Your task to perform on an android device: toggle notification dots Image 0: 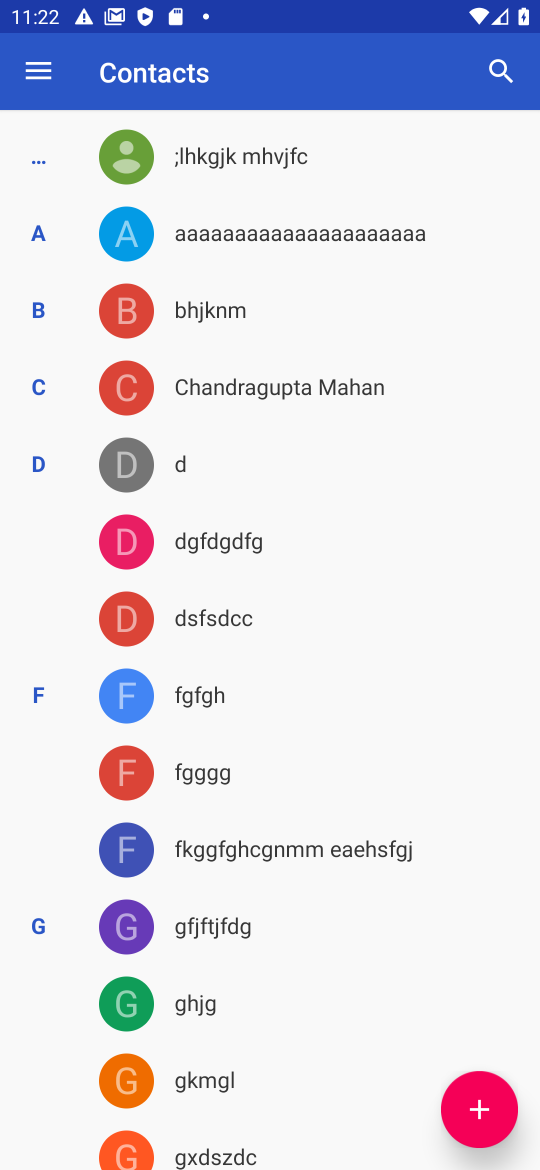
Step 0: press home button
Your task to perform on an android device: toggle notification dots Image 1: 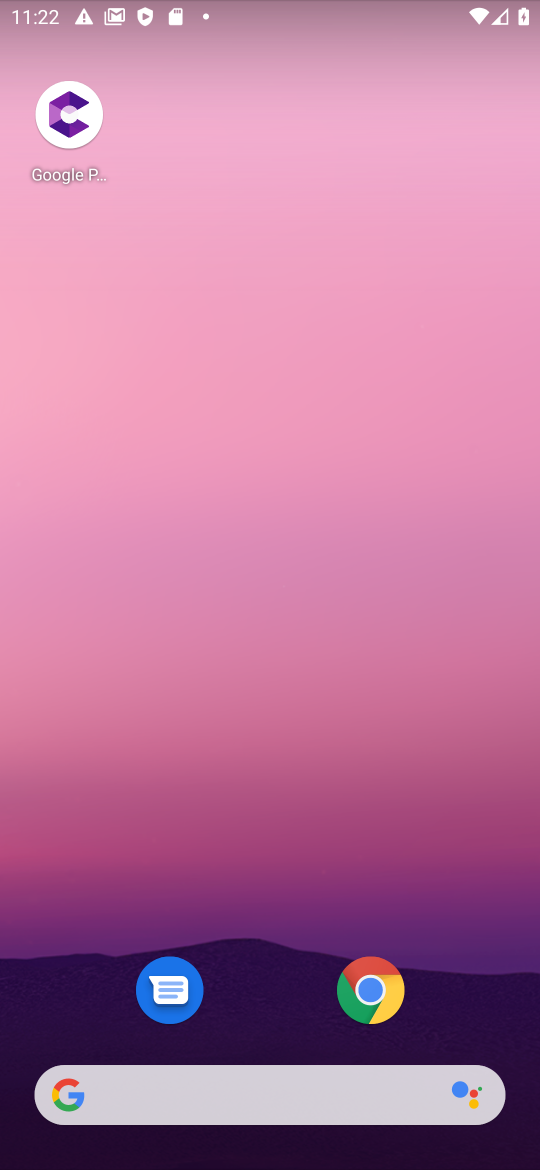
Step 1: drag from (297, 964) to (336, 321)
Your task to perform on an android device: toggle notification dots Image 2: 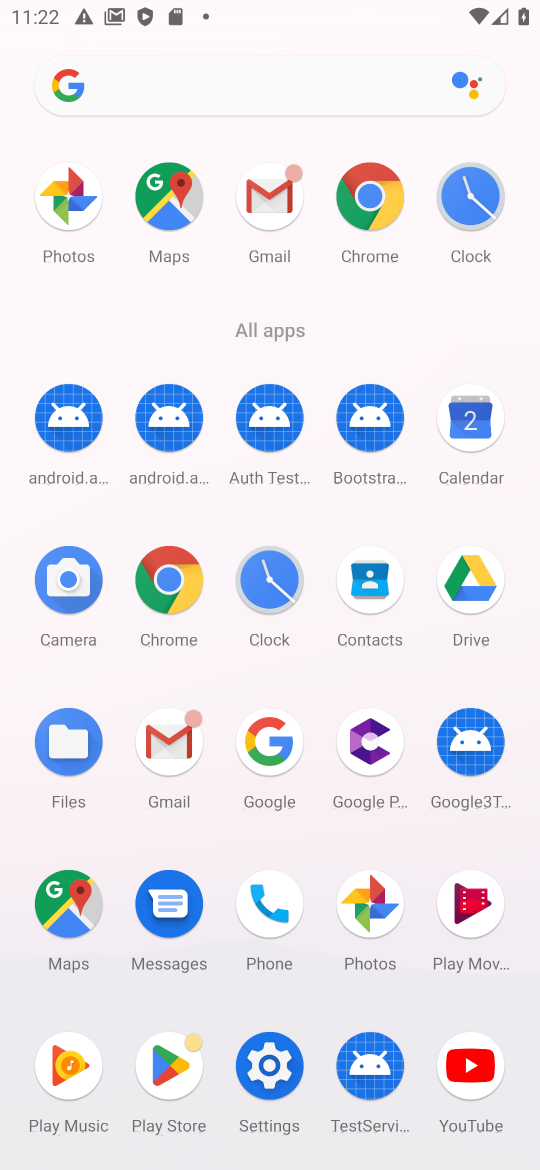
Step 2: click (253, 1053)
Your task to perform on an android device: toggle notification dots Image 3: 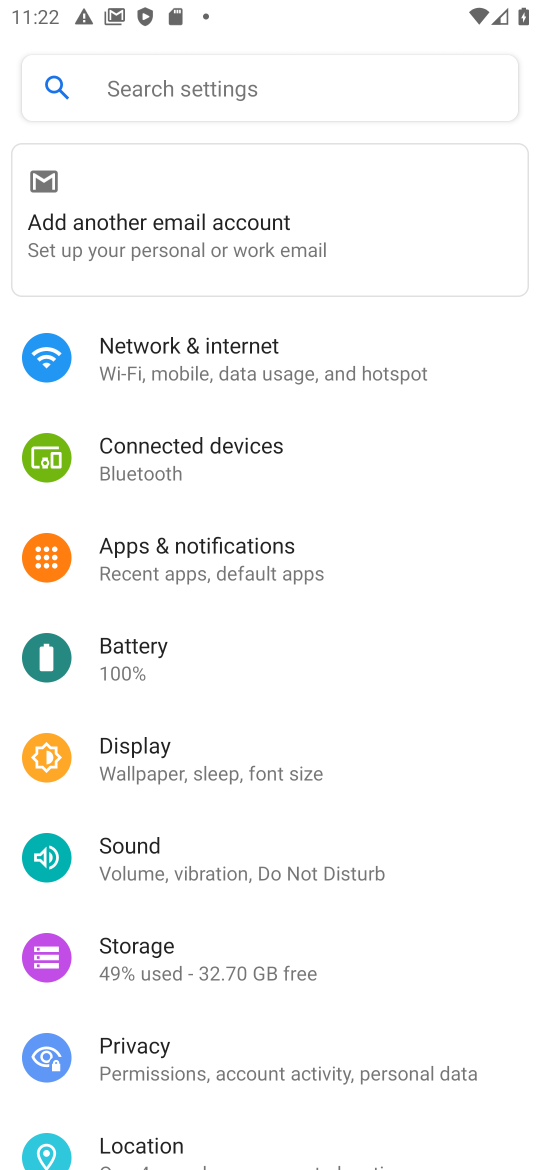
Step 3: click (203, 571)
Your task to perform on an android device: toggle notification dots Image 4: 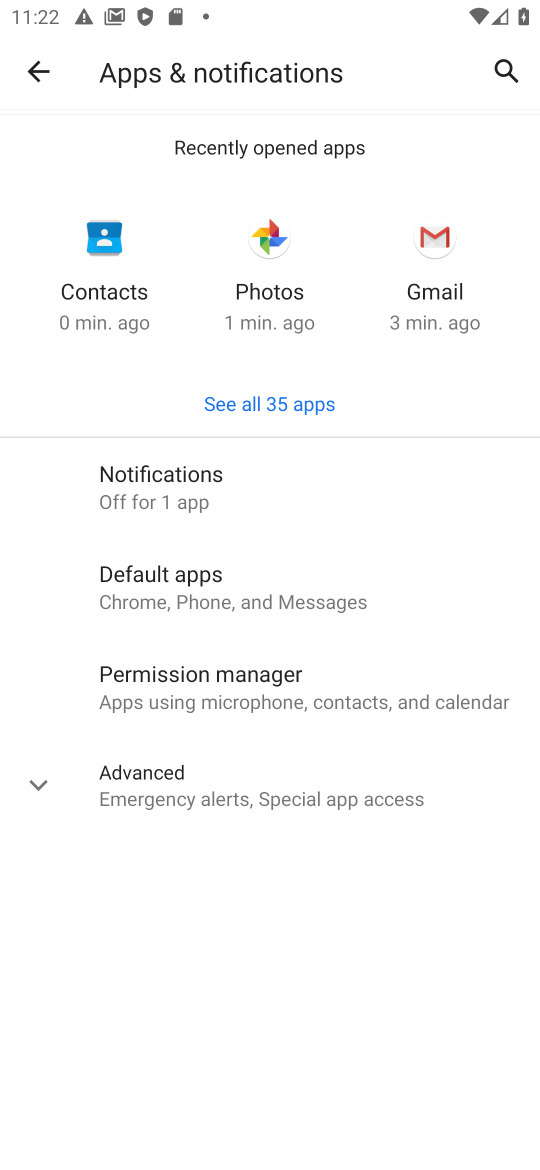
Step 4: click (178, 748)
Your task to perform on an android device: toggle notification dots Image 5: 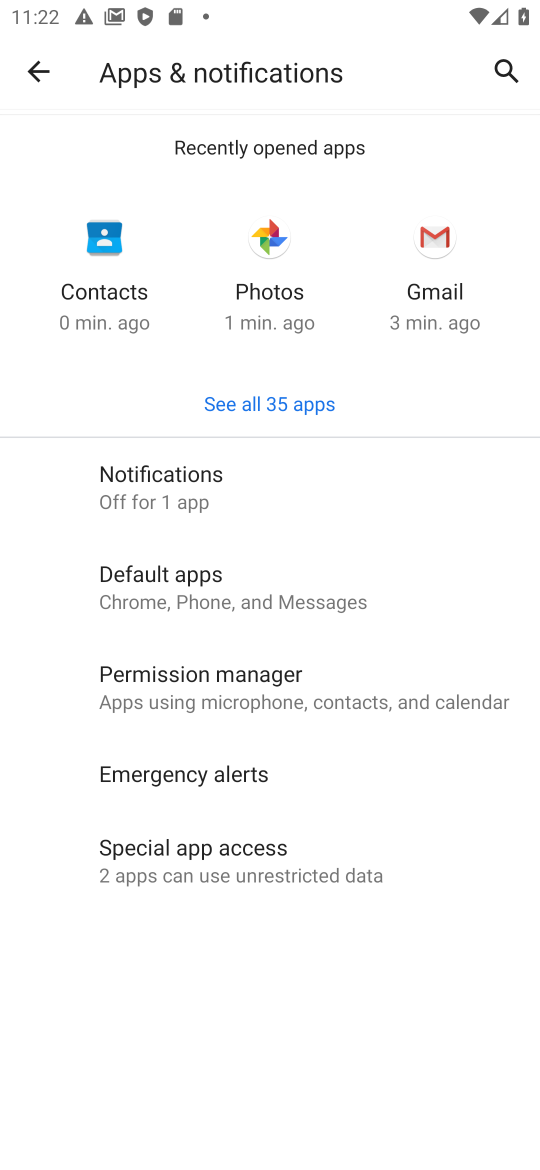
Step 5: click (173, 483)
Your task to perform on an android device: toggle notification dots Image 6: 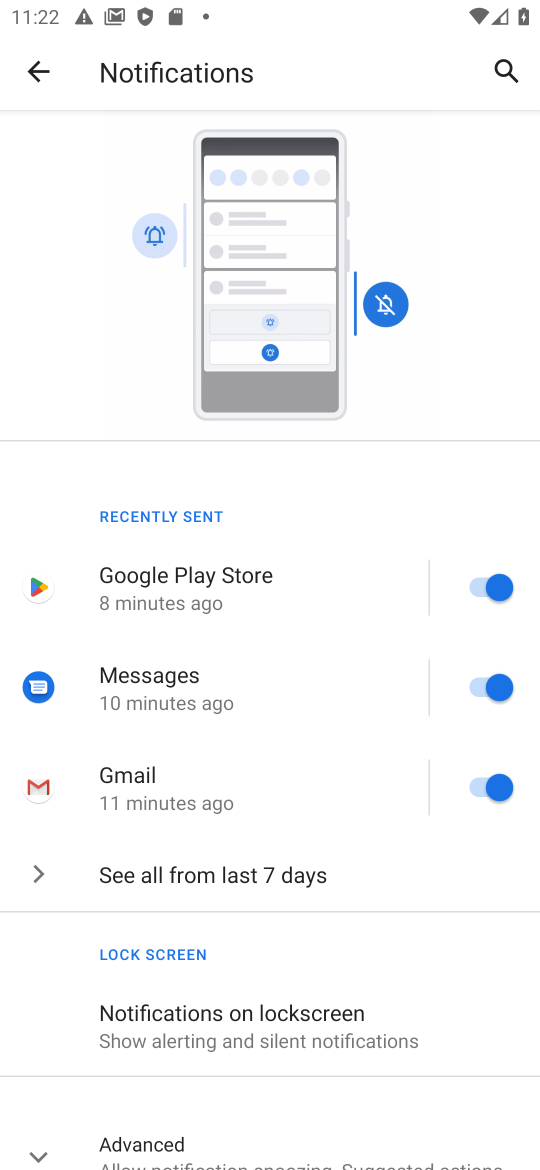
Step 6: drag from (250, 1019) to (257, 678)
Your task to perform on an android device: toggle notification dots Image 7: 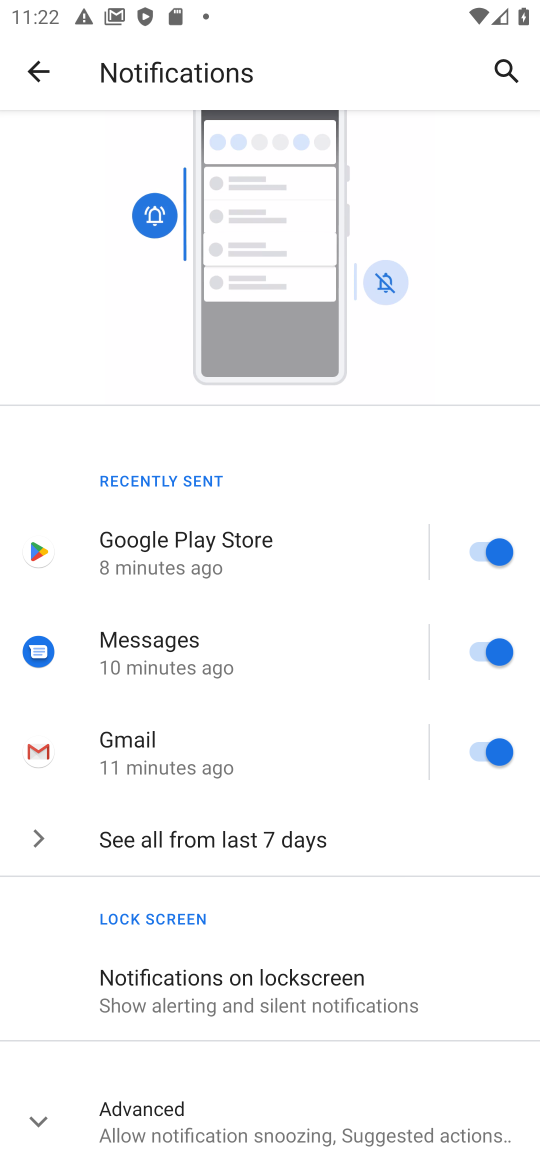
Step 7: click (173, 1113)
Your task to perform on an android device: toggle notification dots Image 8: 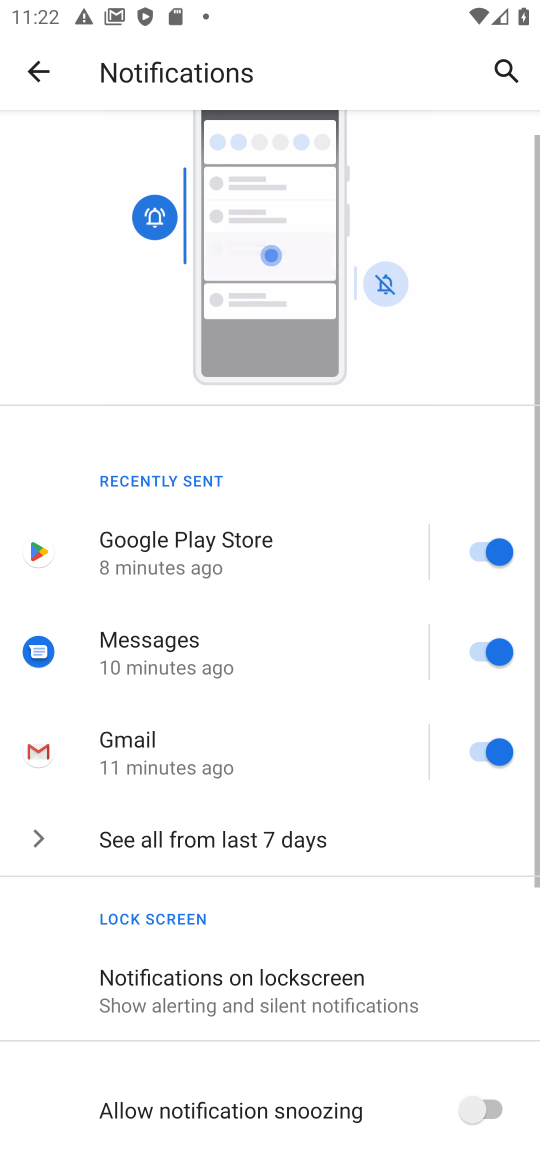
Step 8: drag from (251, 1081) to (306, 586)
Your task to perform on an android device: toggle notification dots Image 9: 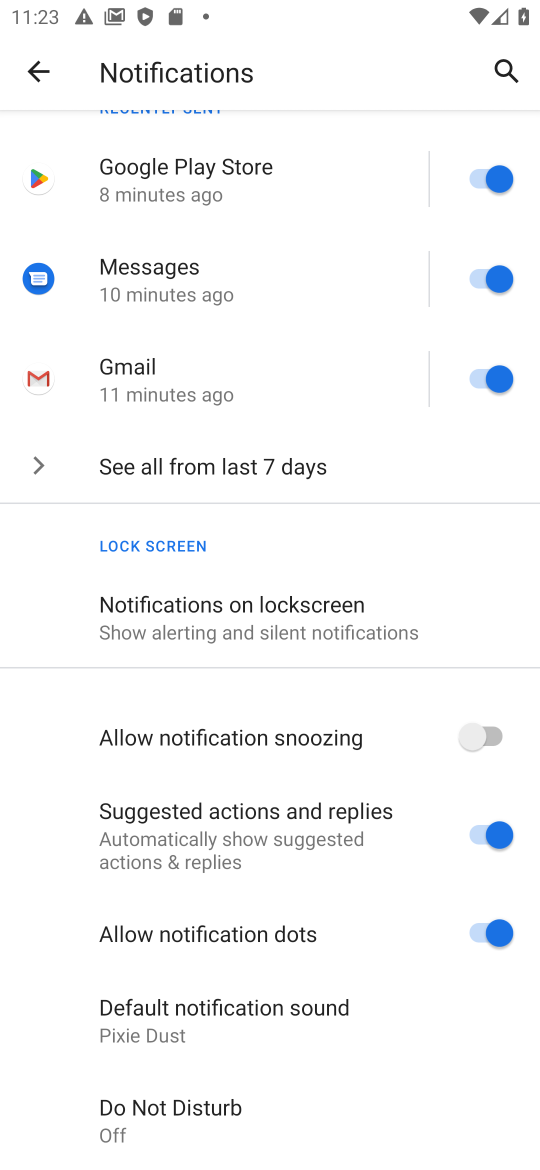
Step 9: click (452, 917)
Your task to perform on an android device: toggle notification dots Image 10: 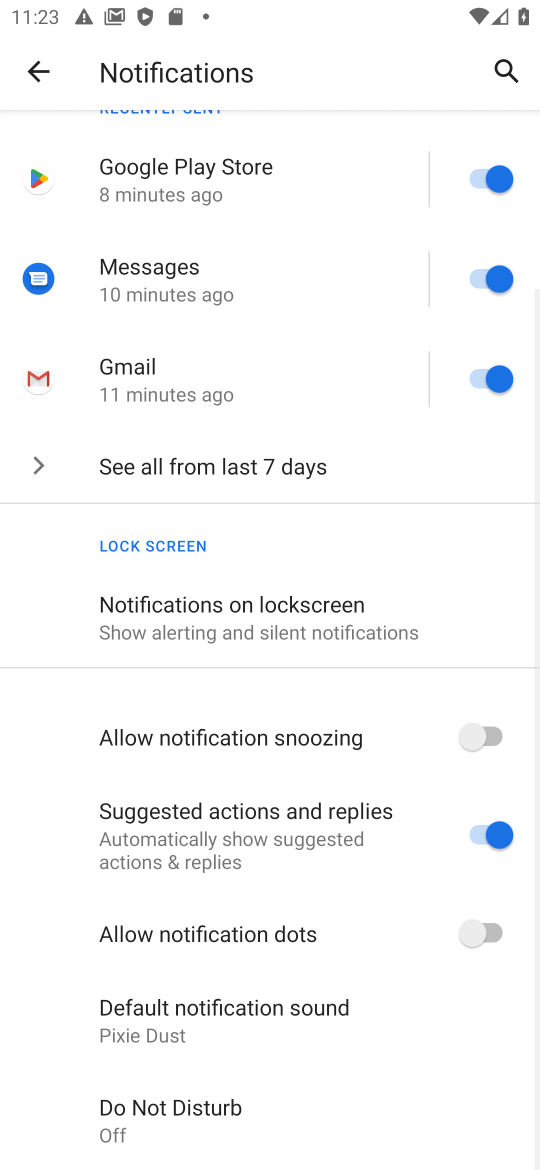
Step 10: task complete